Your task to perform on an android device: Open the web browser Image 0: 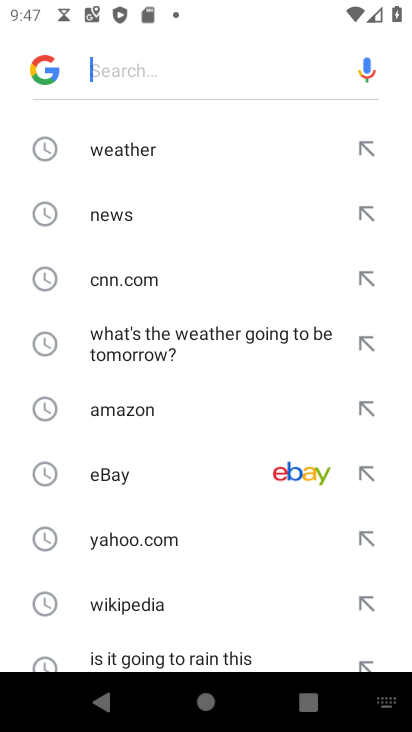
Step 0: press home button
Your task to perform on an android device: Open the web browser Image 1: 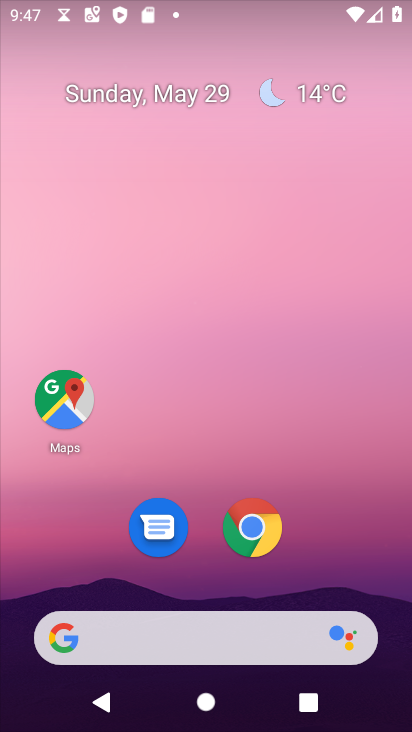
Step 1: click (256, 530)
Your task to perform on an android device: Open the web browser Image 2: 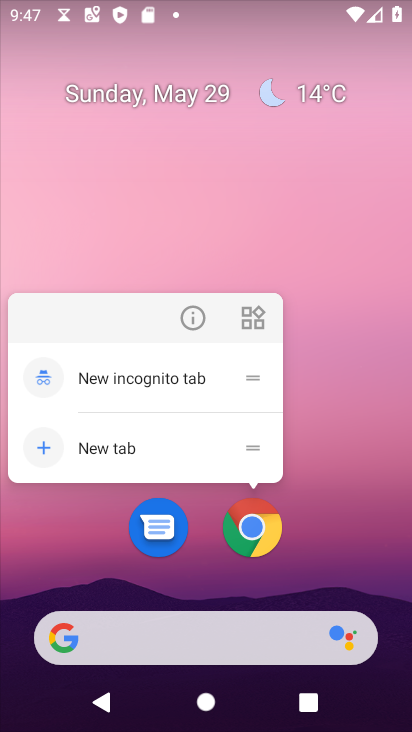
Step 2: click (268, 535)
Your task to perform on an android device: Open the web browser Image 3: 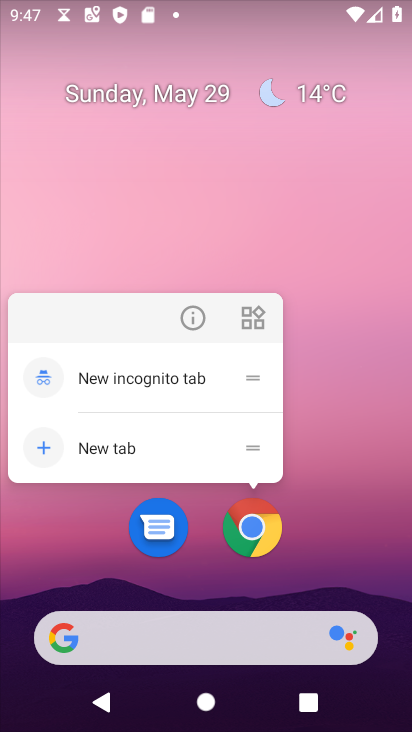
Step 3: click (267, 538)
Your task to perform on an android device: Open the web browser Image 4: 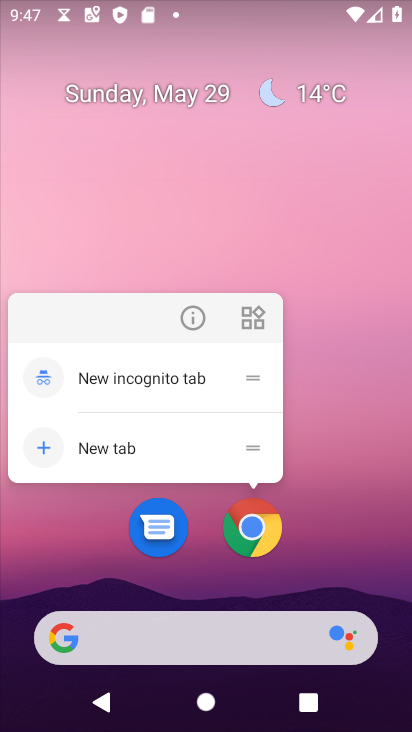
Step 4: click (248, 551)
Your task to perform on an android device: Open the web browser Image 5: 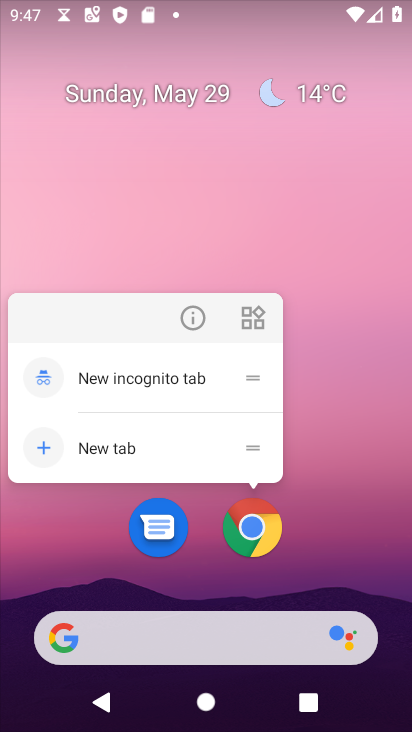
Step 5: click (246, 530)
Your task to perform on an android device: Open the web browser Image 6: 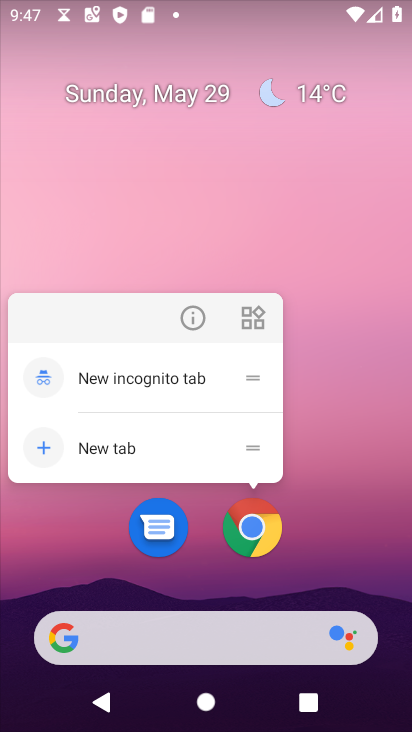
Step 6: click (244, 543)
Your task to perform on an android device: Open the web browser Image 7: 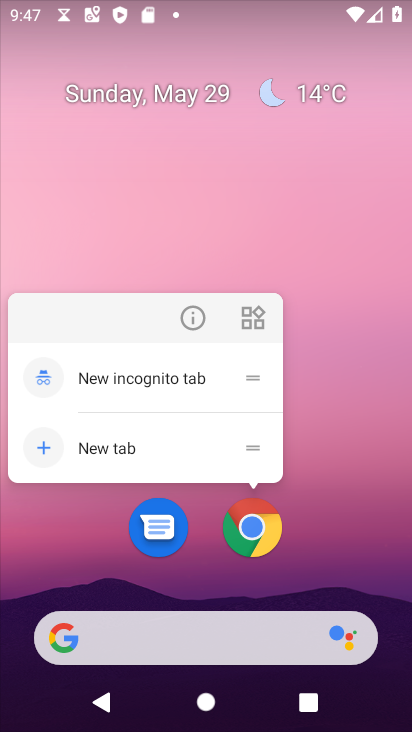
Step 7: click (253, 532)
Your task to perform on an android device: Open the web browser Image 8: 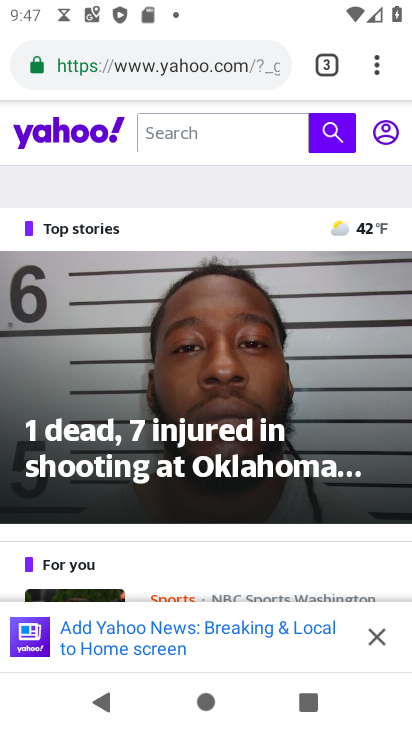
Step 8: task complete